Your task to perform on an android device: Open the Play Movies app and select the watchlist tab. Image 0: 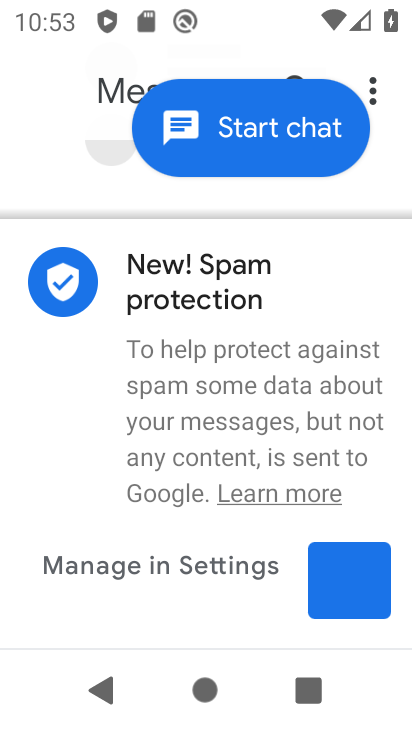
Step 0: press home button
Your task to perform on an android device: Open the Play Movies app and select the watchlist tab. Image 1: 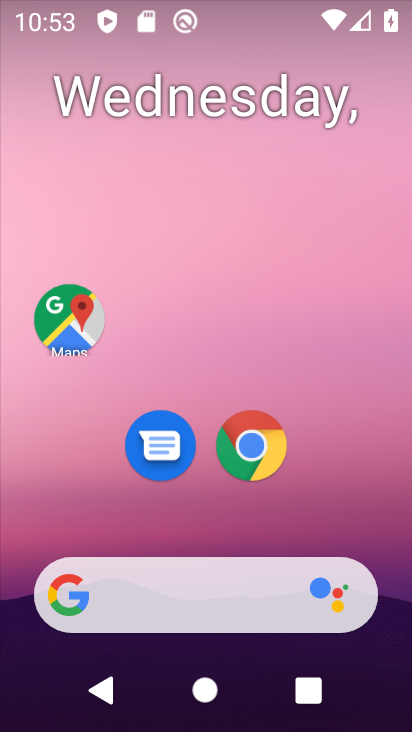
Step 1: drag from (350, 517) to (346, 64)
Your task to perform on an android device: Open the Play Movies app and select the watchlist tab. Image 2: 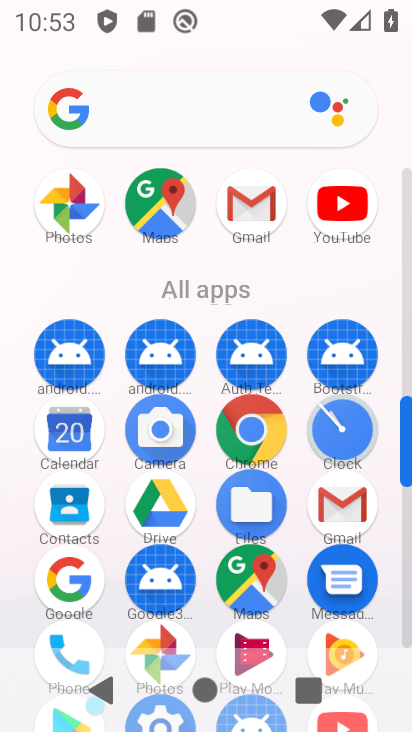
Step 2: drag from (403, 533) to (392, 288)
Your task to perform on an android device: Open the Play Movies app and select the watchlist tab. Image 3: 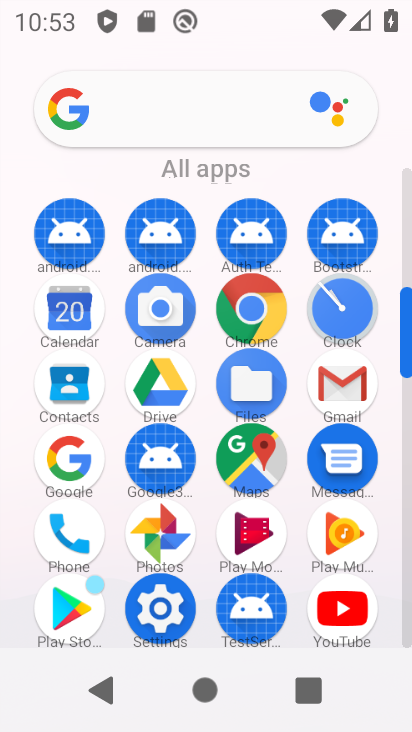
Step 3: click (255, 536)
Your task to perform on an android device: Open the Play Movies app and select the watchlist tab. Image 4: 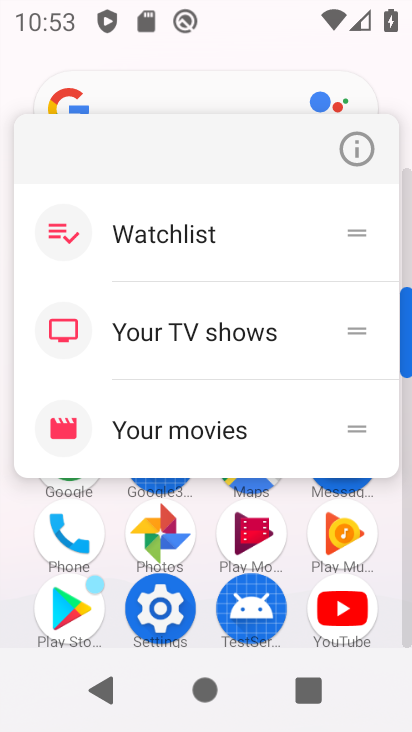
Step 4: click (249, 527)
Your task to perform on an android device: Open the Play Movies app and select the watchlist tab. Image 5: 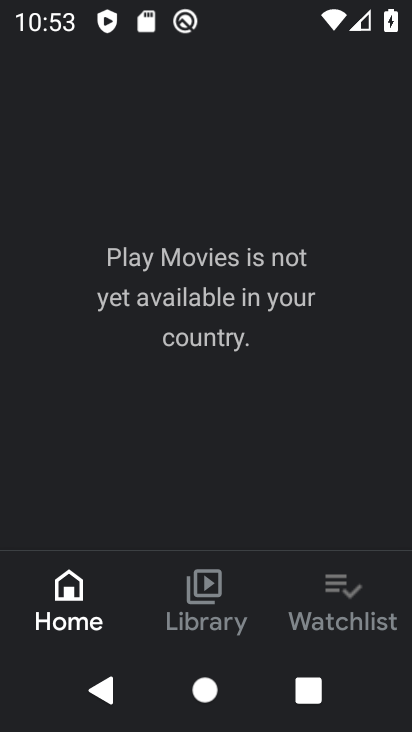
Step 5: click (332, 584)
Your task to perform on an android device: Open the Play Movies app and select the watchlist tab. Image 6: 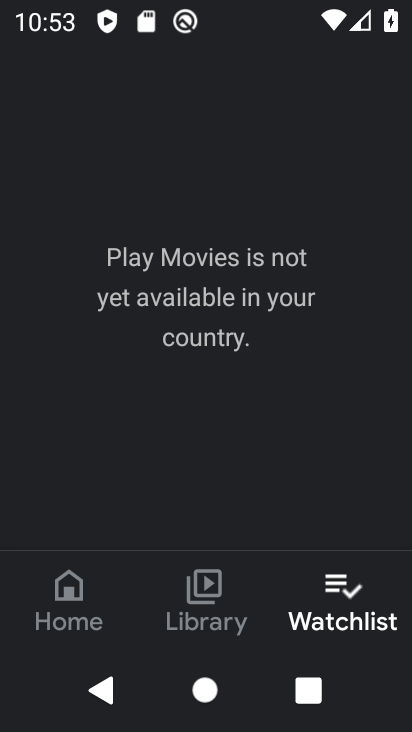
Step 6: task complete